Your task to perform on an android device: Go to calendar. Show me events next week Image 0: 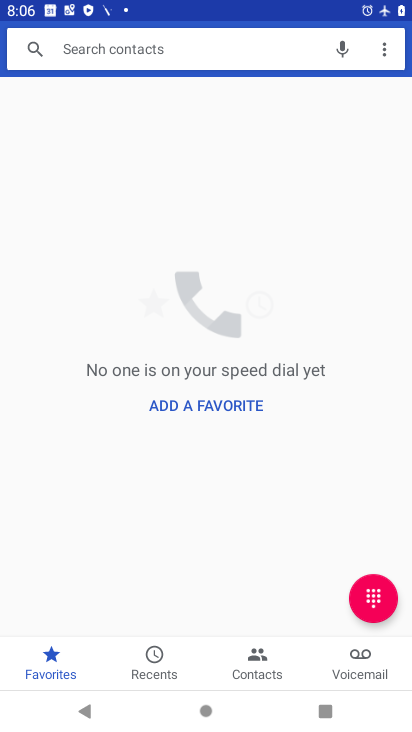
Step 0: press home button
Your task to perform on an android device: Go to calendar. Show me events next week Image 1: 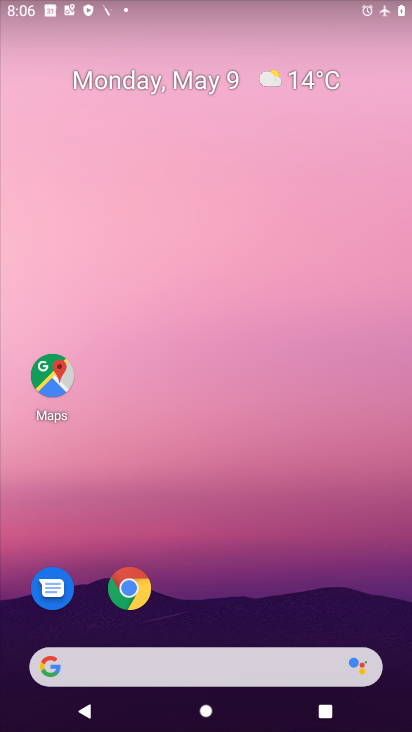
Step 1: drag from (293, 597) to (266, 33)
Your task to perform on an android device: Go to calendar. Show me events next week Image 2: 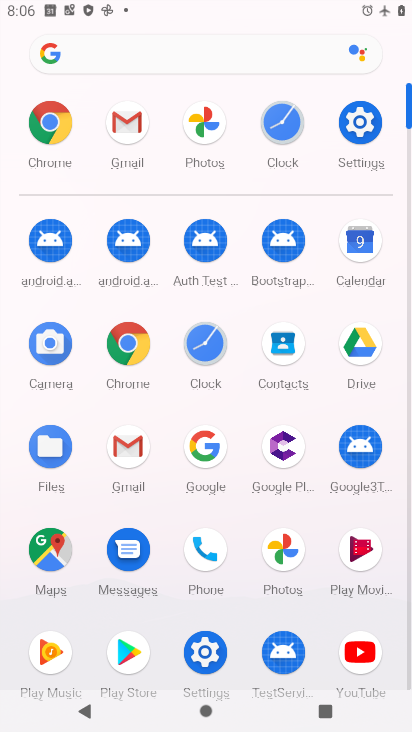
Step 2: click (354, 255)
Your task to perform on an android device: Go to calendar. Show me events next week Image 3: 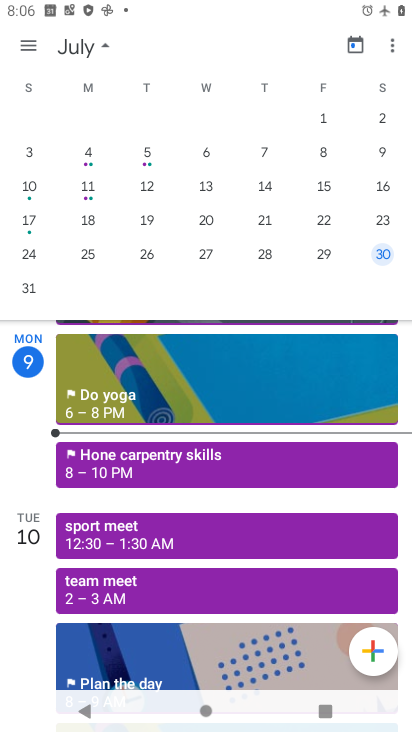
Step 3: click (32, 176)
Your task to perform on an android device: Go to calendar. Show me events next week Image 4: 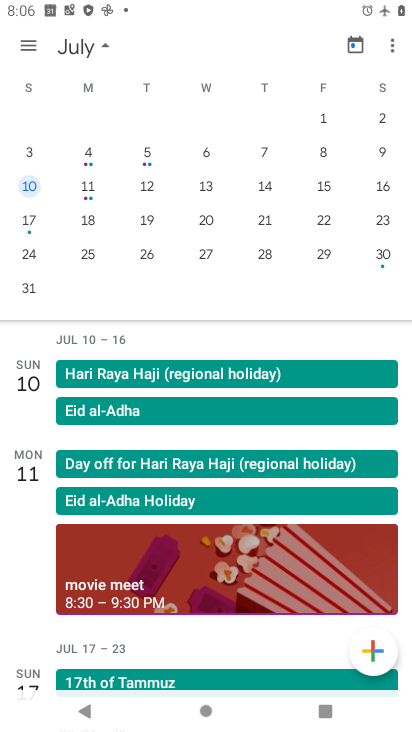
Step 4: click (119, 496)
Your task to perform on an android device: Go to calendar. Show me events next week Image 5: 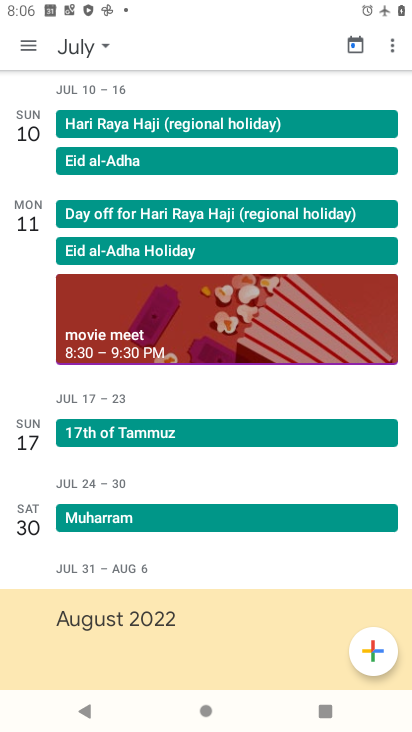
Step 5: task complete